Your task to perform on an android device: Open calendar and show me the second week of next month Image 0: 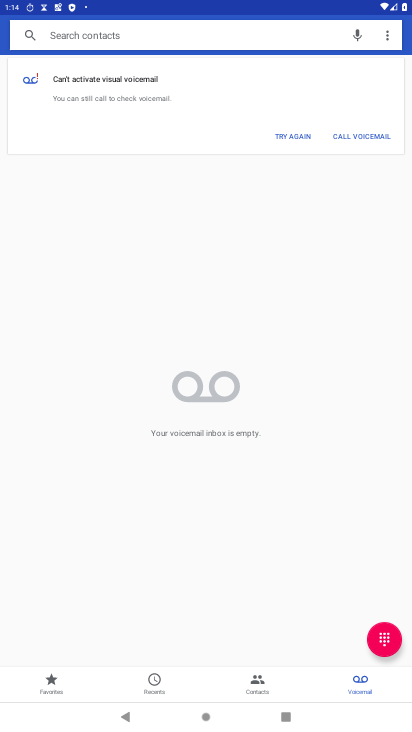
Step 0: press home button
Your task to perform on an android device: Open calendar and show me the second week of next month Image 1: 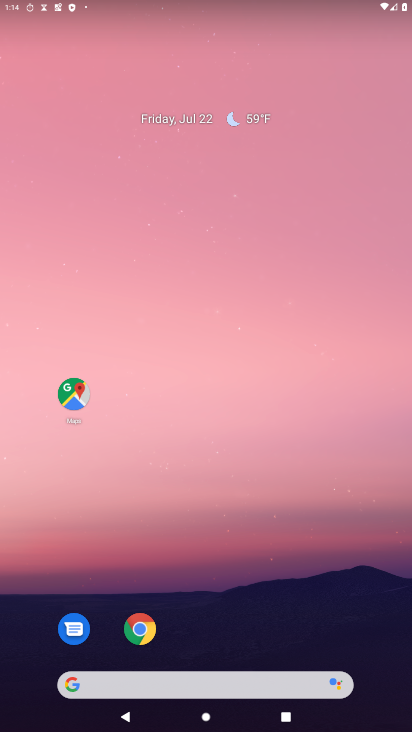
Step 1: drag from (205, 623) to (249, 368)
Your task to perform on an android device: Open calendar and show me the second week of next month Image 2: 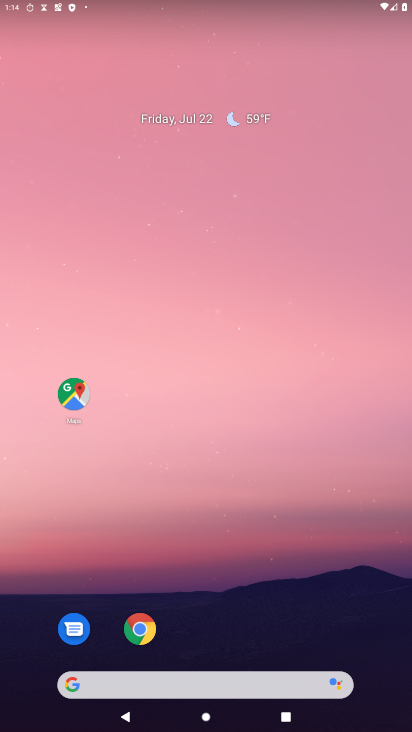
Step 2: drag from (255, 680) to (201, 128)
Your task to perform on an android device: Open calendar and show me the second week of next month Image 3: 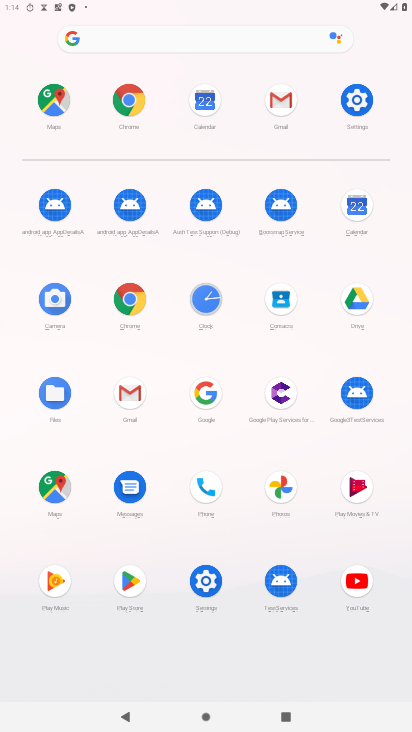
Step 3: click (355, 203)
Your task to perform on an android device: Open calendar and show me the second week of next month Image 4: 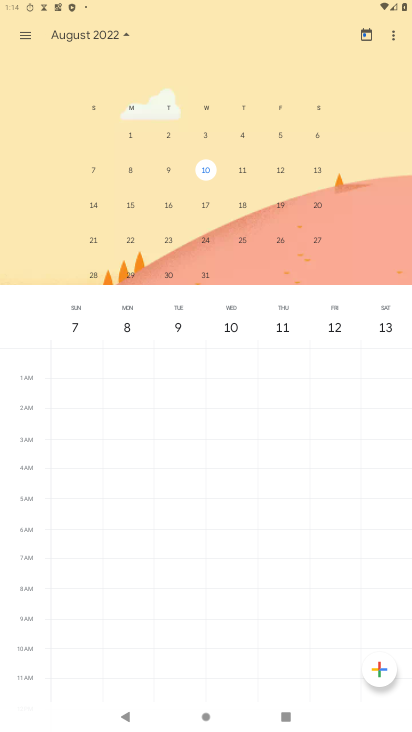
Step 4: task complete